Your task to perform on an android device: Go to Google maps Image 0: 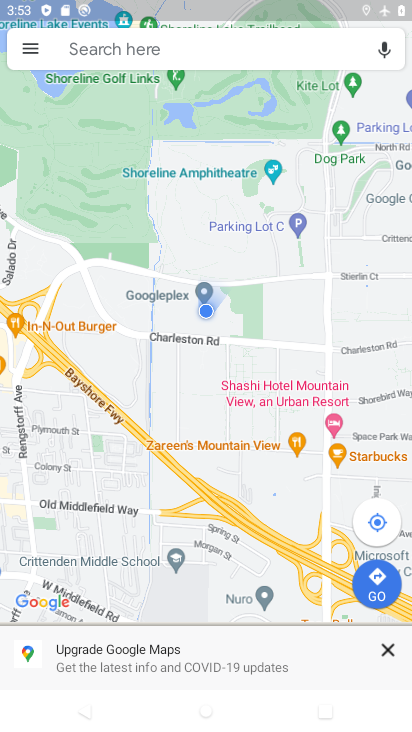
Step 0: task complete